Your task to perform on an android device: open a bookmark in the chrome app Image 0: 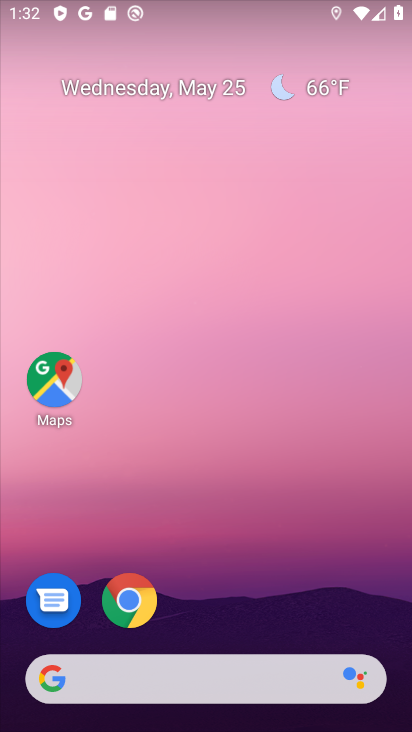
Step 0: click (128, 610)
Your task to perform on an android device: open a bookmark in the chrome app Image 1: 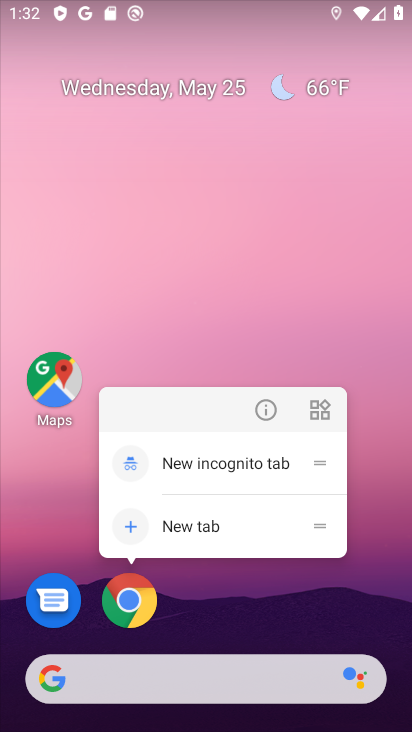
Step 1: click (128, 608)
Your task to perform on an android device: open a bookmark in the chrome app Image 2: 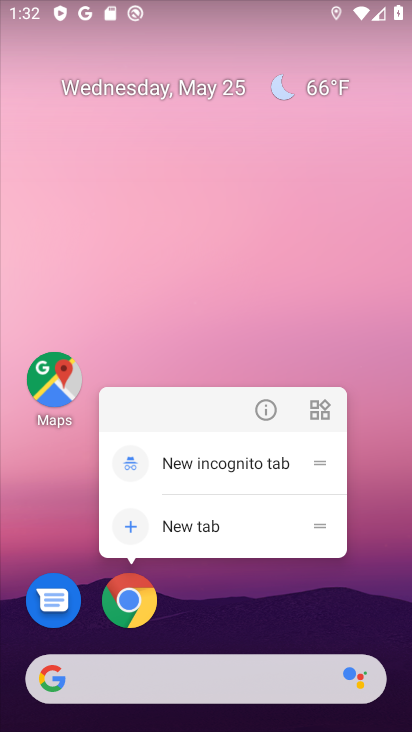
Step 2: click (129, 608)
Your task to perform on an android device: open a bookmark in the chrome app Image 3: 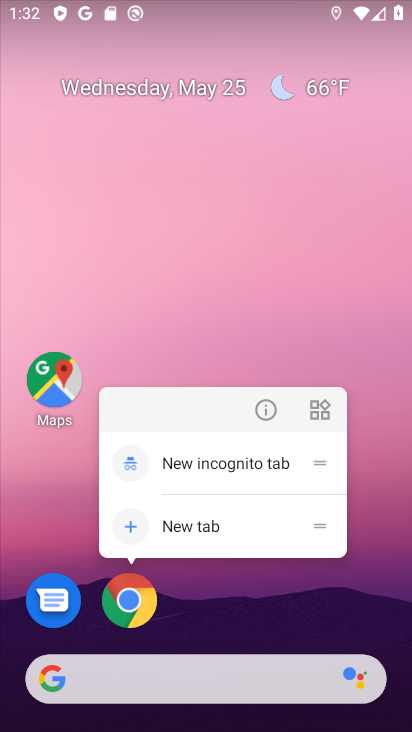
Step 3: click (129, 608)
Your task to perform on an android device: open a bookmark in the chrome app Image 4: 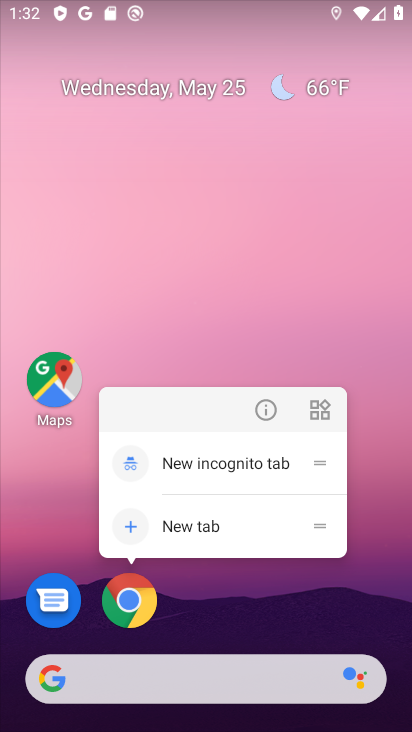
Step 4: click (136, 613)
Your task to perform on an android device: open a bookmark in the chrome app Image 5: 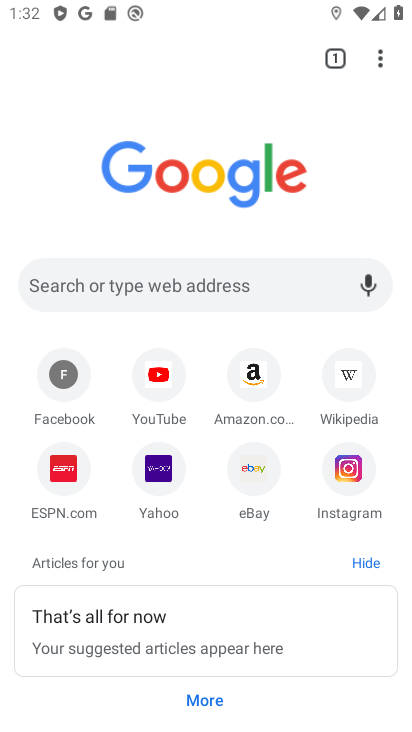
Step 5: drag from (382, 53) to (320, 232)
Your task to perform on an android device: open a bookmark in the chrome app Image 6: 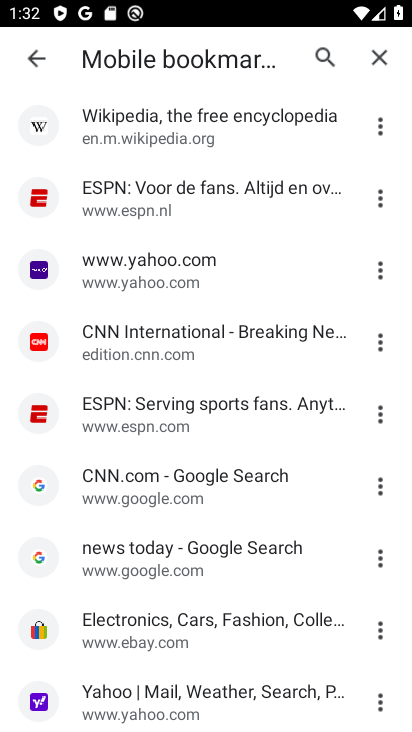
Step 6: click (156, 562)
Your task to perform on an android device: open a bookmark in the chrome app Image 7: 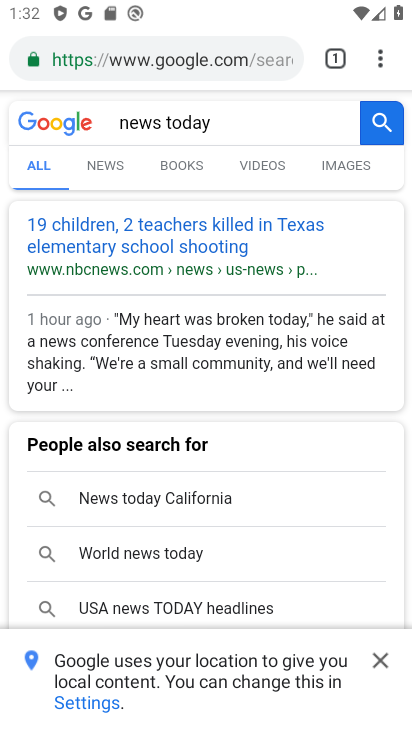
Step 7: task complete